Your task to perform on an android device: Add macbook pro to the cart on ebay, then select checkout. Image 0: 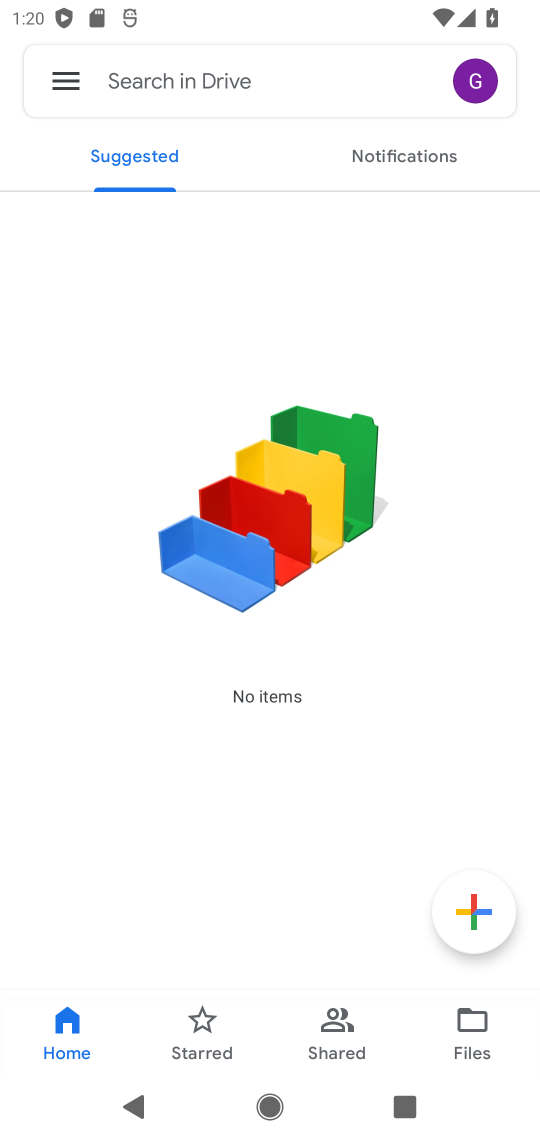
Step 0: press home button
Your task to perform on an android device: Add macbook pro to the cart on ebay, then select checkout. Image 1: 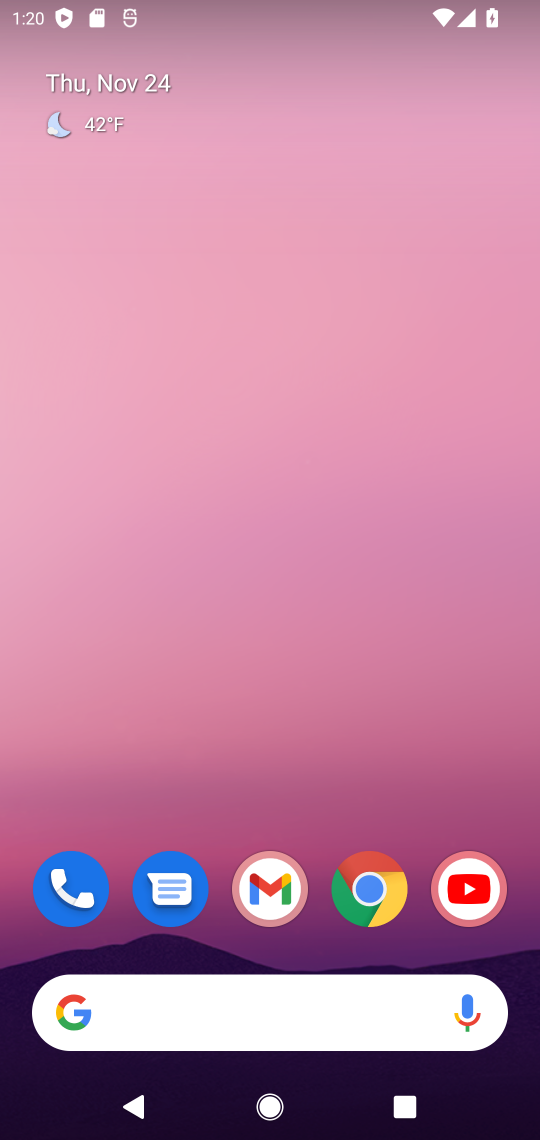
Step 1: click (373, 899)
Your task to perform on an android device: Add macbook pro to the cart on ebay, then select checkout. Image 2: 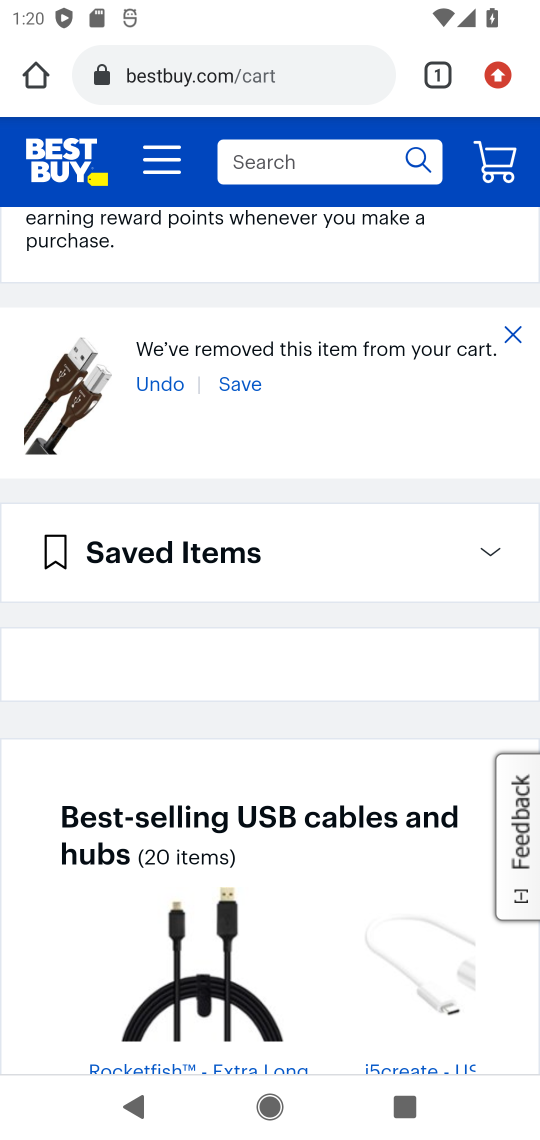
Step 2: click (205, 76)
Your task to perform on an android device: Add macbook pro to the cart on ebay, then select checkout. Image 3: 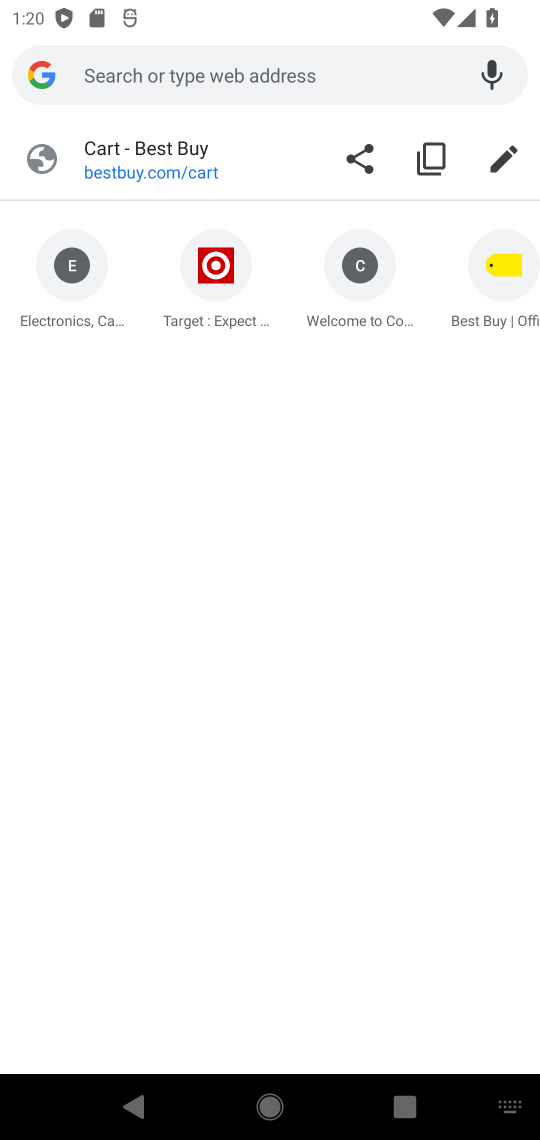
Step 3: type "ebay.com"
Your task to perform on an android device: Add macbook pro to the cart on ebay, then select checkout. Image 4: 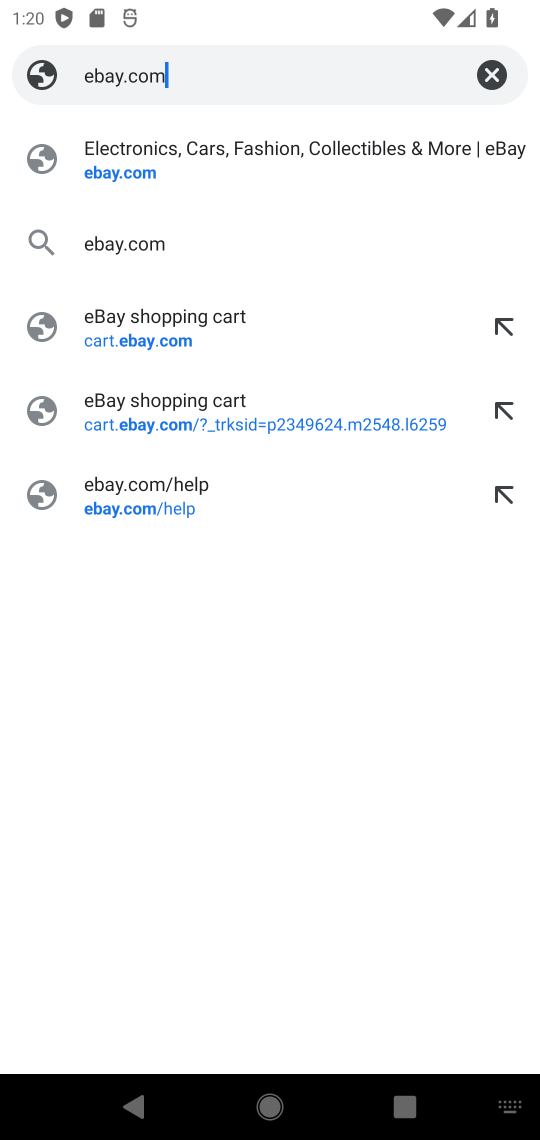
Step 4: click (120, 171)
Your task to perform on an android device: Add macbook pro to the cart on ebay, then select checkout. Image 5: 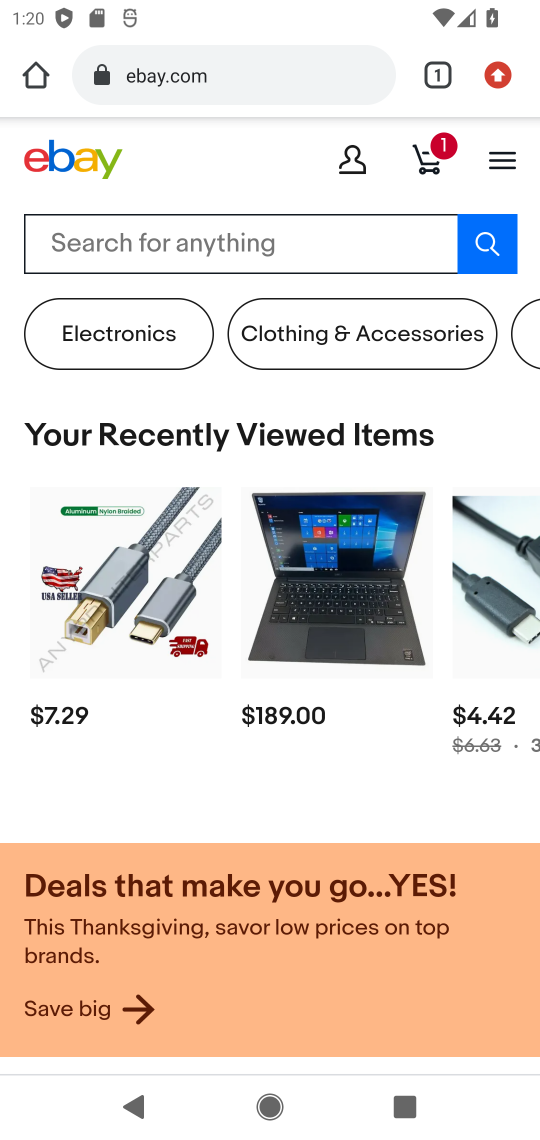
Step 5: click (211, 226)
Your task to perform on an android device: Add macbook pro to the cart on ebay, then select checkout. Image 6: 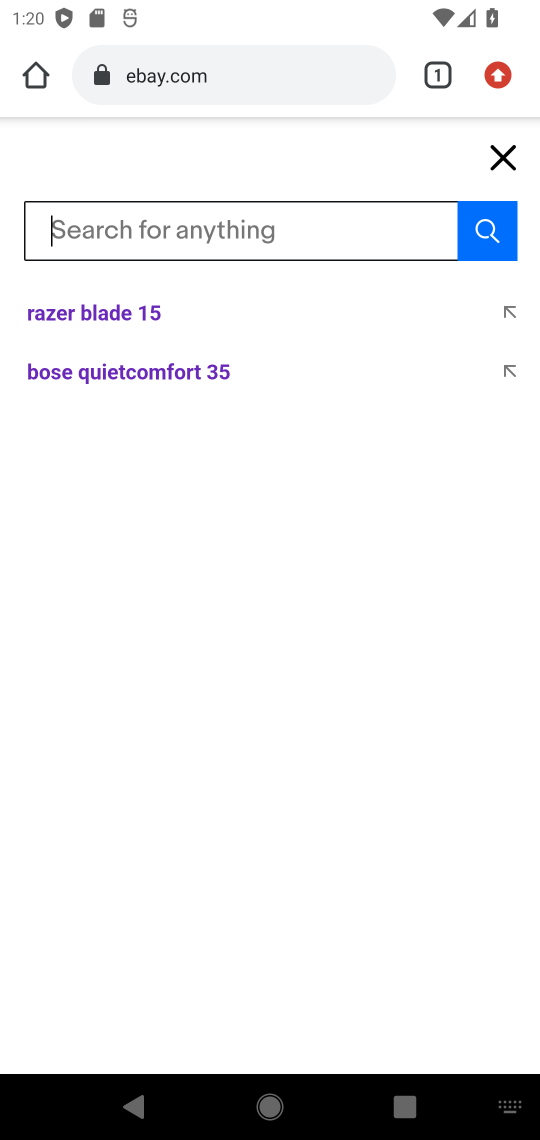
Step 6: type "macbook pro "
Your task to perform on an android device: Add macbook pro to the cart on ebay, then select checkout. Image 7: 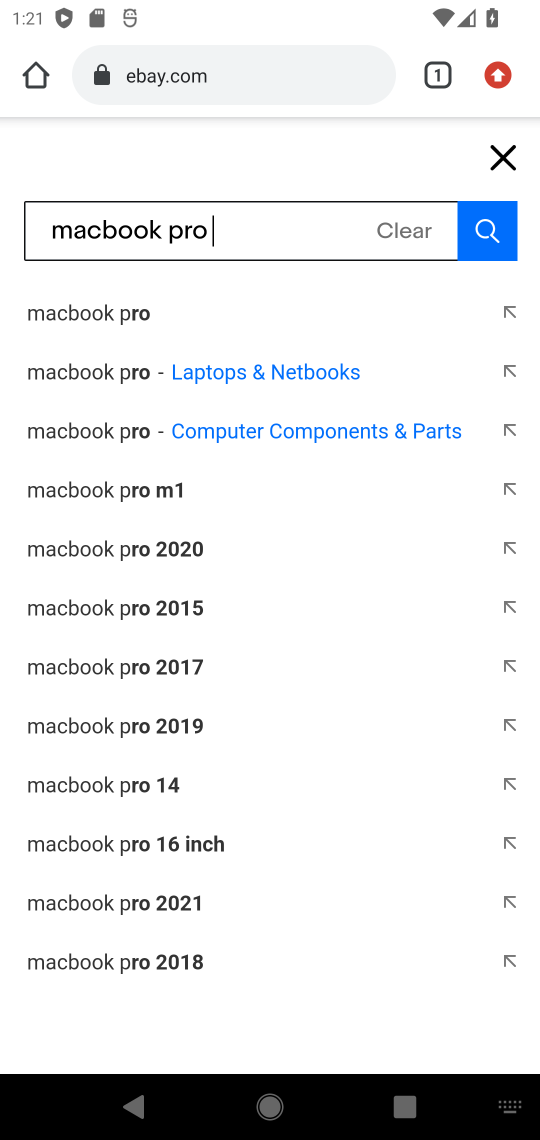
Step 7: click (93, 322)
Your task to perform on an android device: Add macbook pro to the cart on ebay, then select checkout. Image 8: 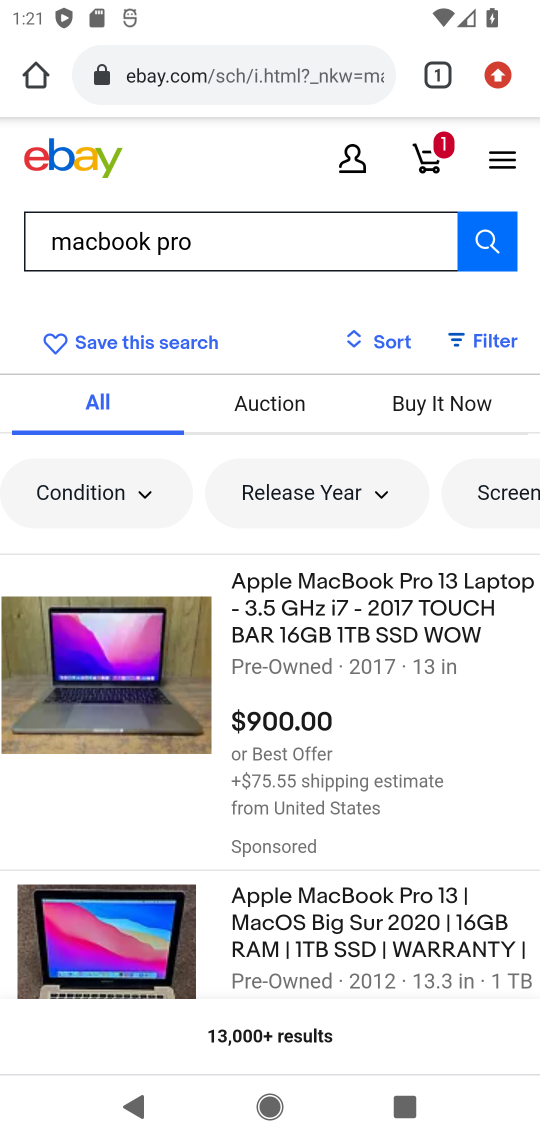
Step 8: click (130, 678)
Your task to perform on an android device: Add macbook pro to the cart on ebay, then select checkout. Image 9: 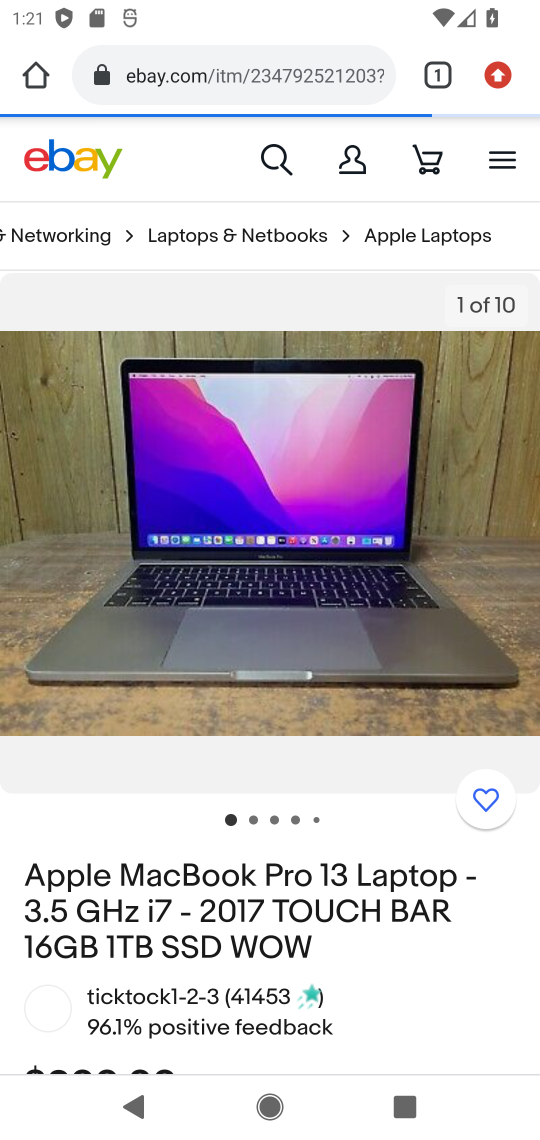
Step 9: drag from (252, 770) to (268, 197)
Your task to perform on an android device: Add macbook pro to the cart on ebay, then select checkout. Image 10: 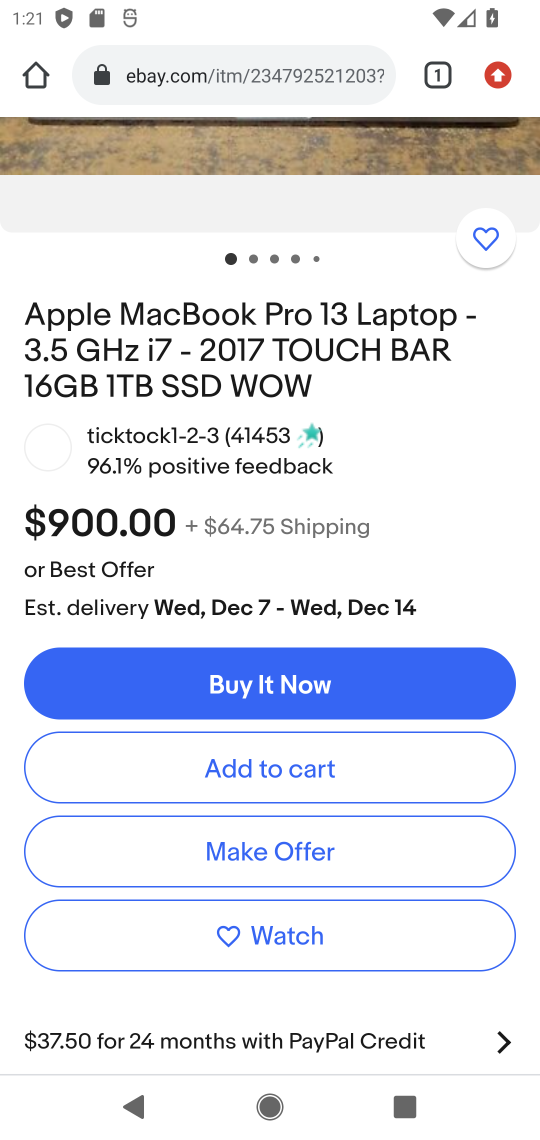
Step 10: click (252, 764)
Your task to perform on an android device: Add macbook pro to the cart on ebay, then select checkout. Image 11: 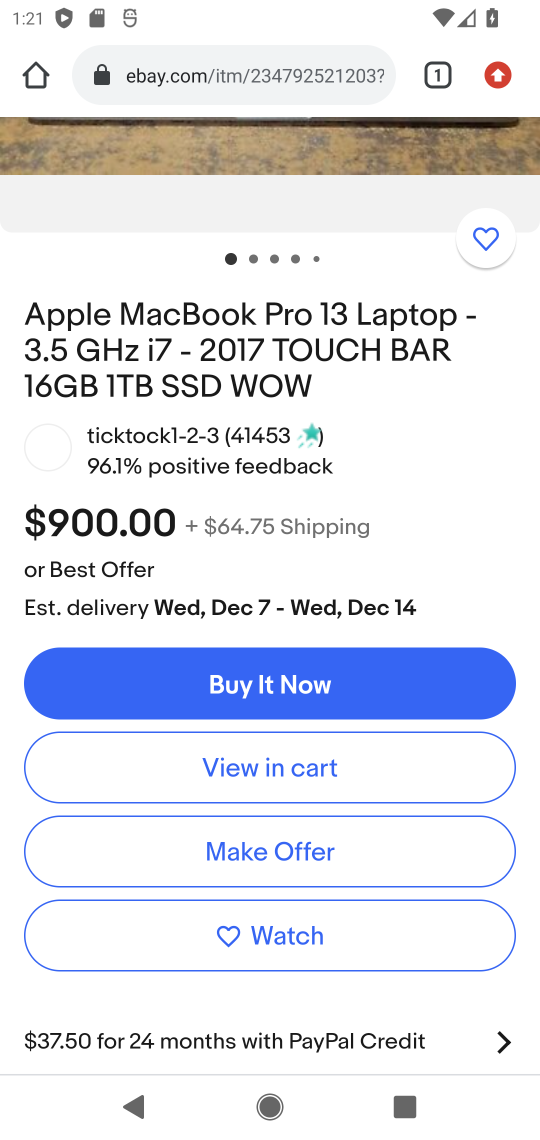
Step 11: click (252, 764)
Your task to perform on an android device: Add macbook pro to the cart on ebay, then select checkout. Image 12: 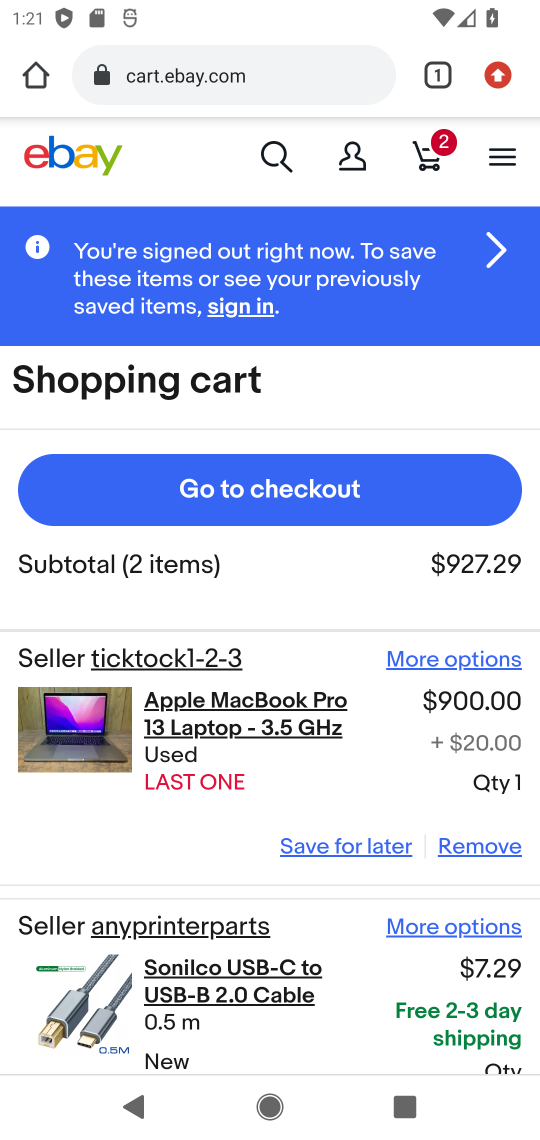
Step 12: click (228, 494)
Your task to perform on an android device: Add macbook pro to the cart on ebay, then select checkout. Image 13: 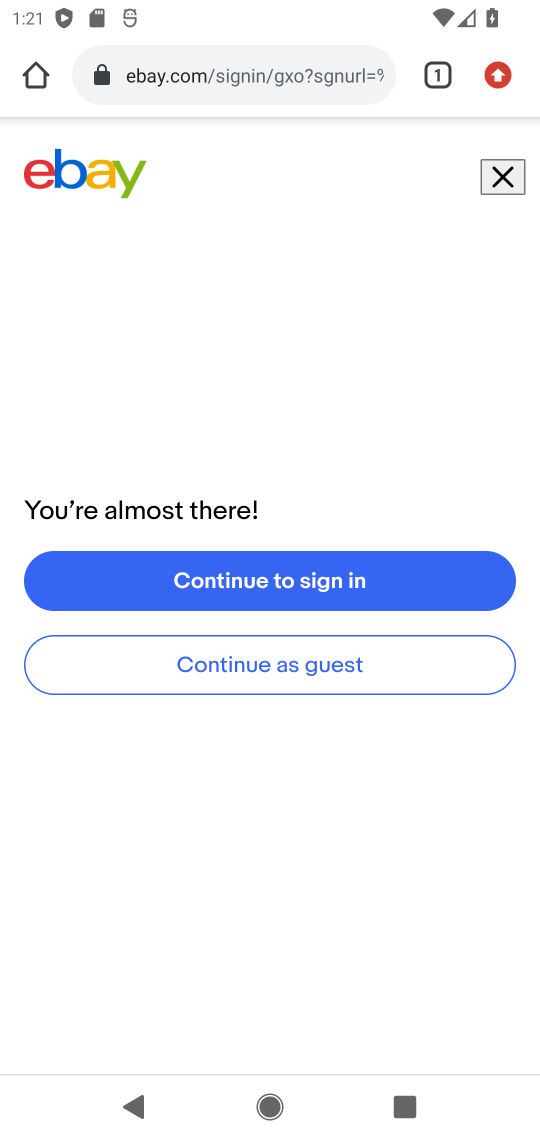
Step 13: task complete